Your task to perform on an android device: Open location settings Image 0: 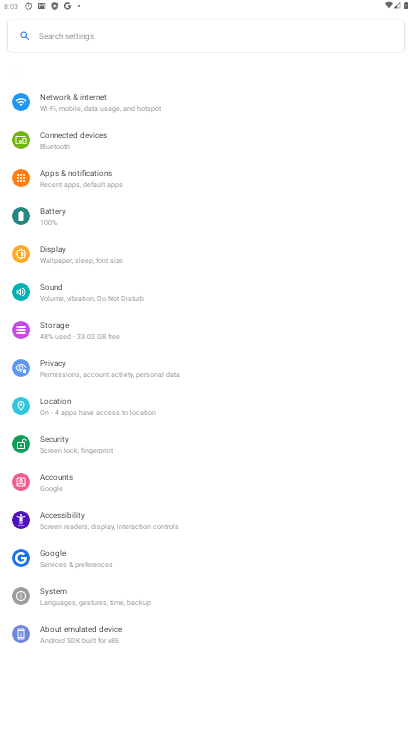
Step 0: drag from (215, 601) to (196, 74)
Your task to perform on an android device: Open location settings Image 1: 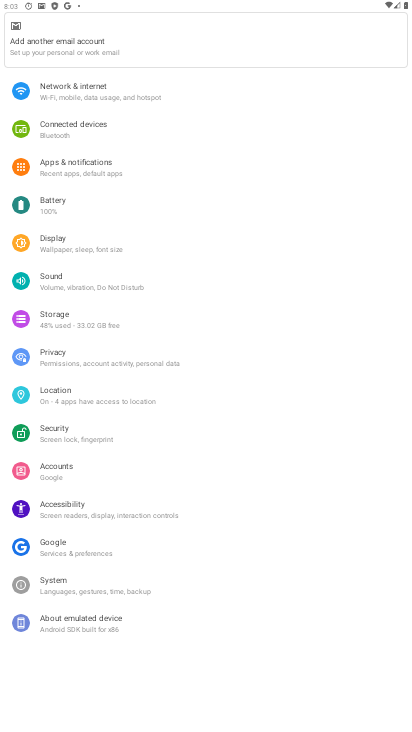
Step 1: drag from (139, 146) to (264, 598)
Your task to perform on an android device: Open location settings Image 2: 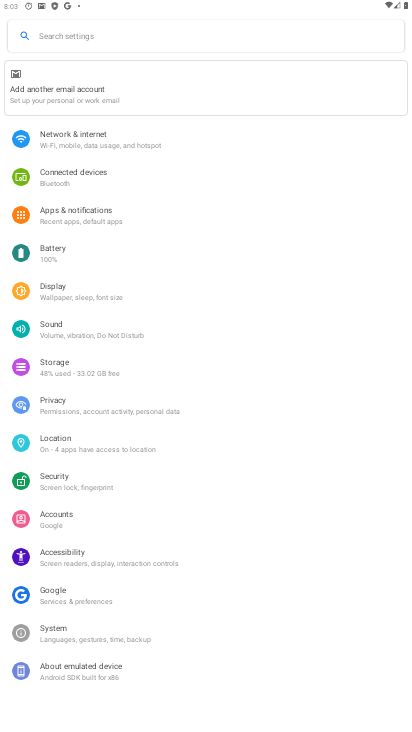
Step 2: click (75, 448)
Your task to perform on an android device: Open location settings Image 3: 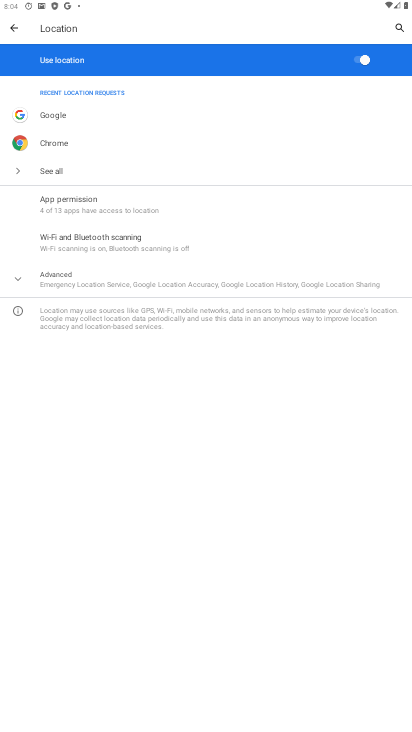
Step 3: task complete